Your task to perform on an android device: turn off location history Image 0: 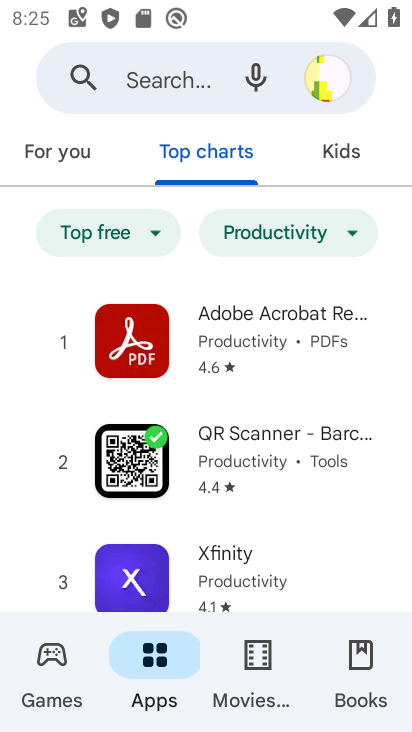
Step 0: press home button
Your task to perform on an android device: turn off location history Image 1: 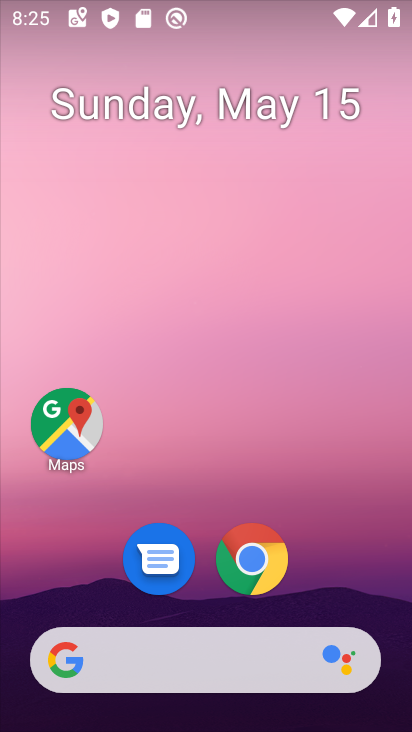
Step 1: drag from (349, 584) to (349, 80)
Your task to perform on an android device: turn off location history Image 2: 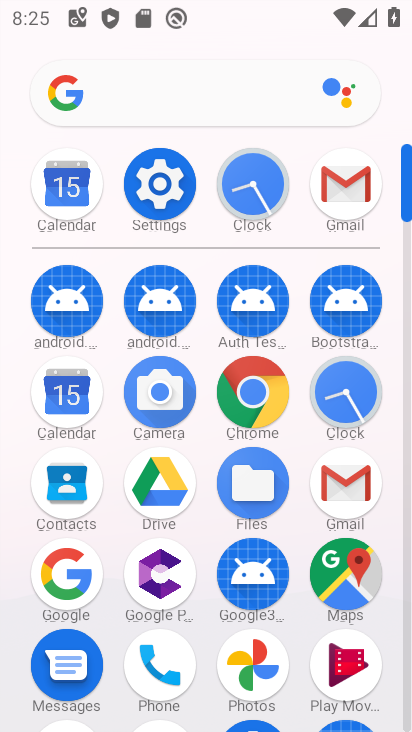
Step 2: click (166, 225)
Your task to perform on an android device: turn off location history Image 3: 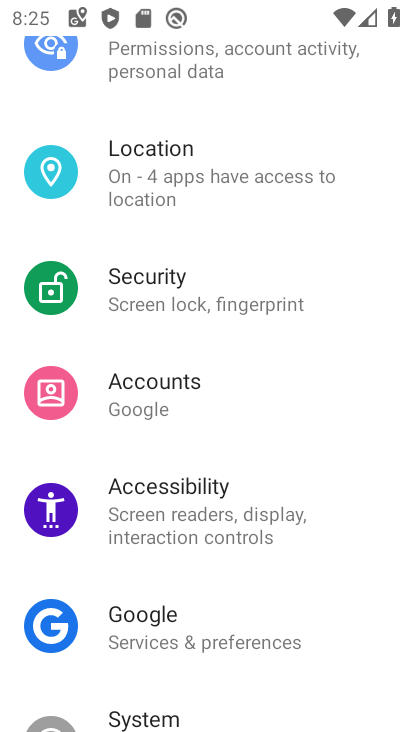
Step 3: click (216, 175)
Your task to perform on an android device: turn off location history Image 4: 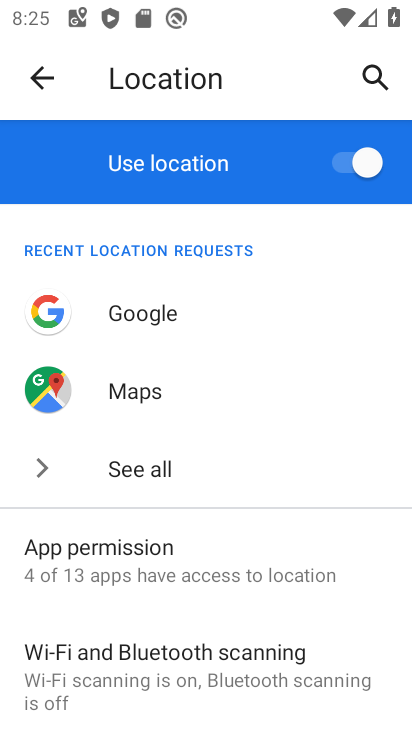
Step 4: drag from (211, 589) to (248, 348)
Your task to perform on an android device: turn off location history Image 5: 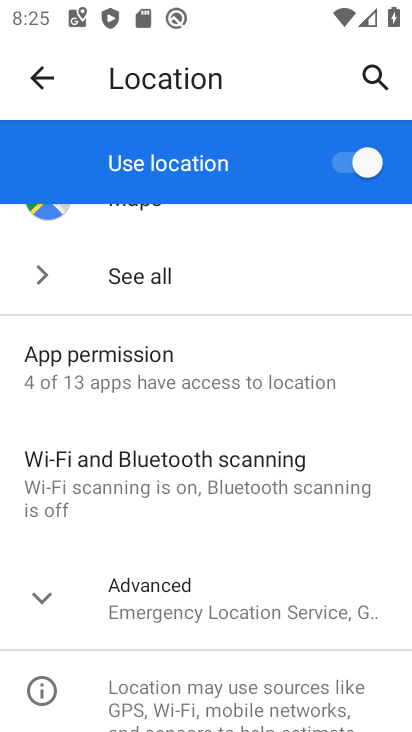
Step 5: click (218, 558)
Your task to perform on an android device: turn off location history Image 6: 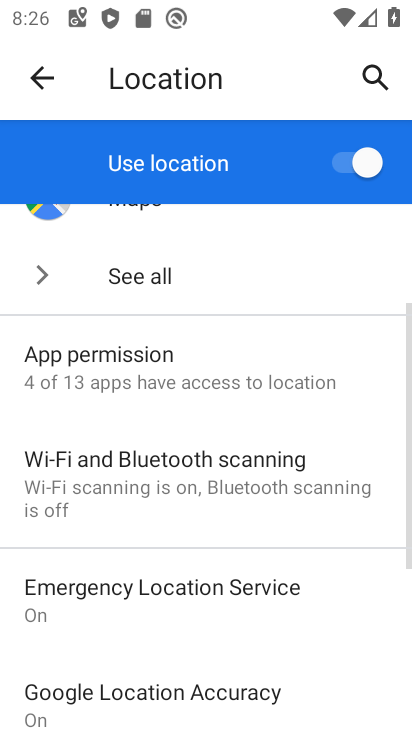
Step 6: drag from (218, 558) to (255, 419)
Your task to perform on an android device: turn off location history Image 7: 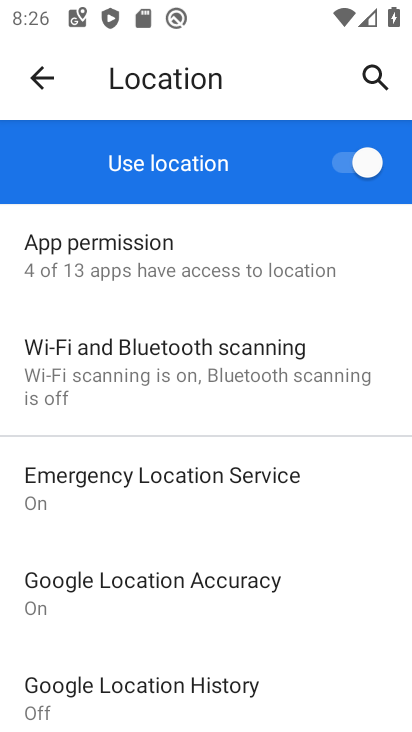
Step 7: click (195, 686)
Your task to perform on an android device: turn off location history Image 8: 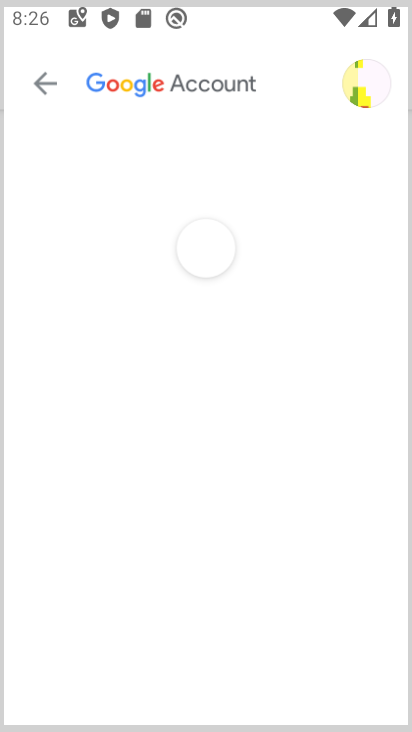
Step 8: task complete